Your task to perform on an android device: check battery use Image 0: 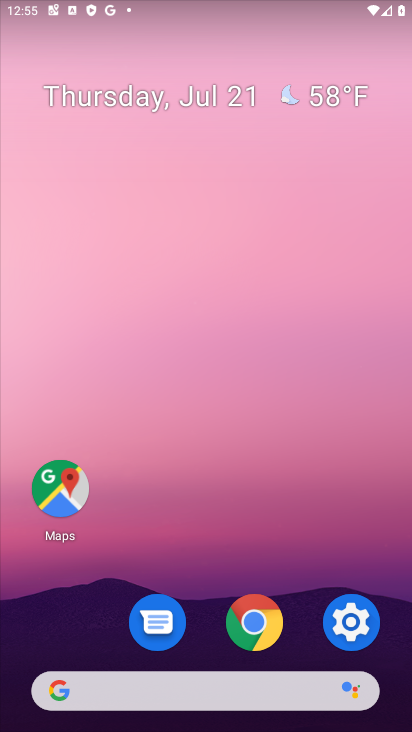
Step 0: click (357, 616)
Your task to perform on an android device: check battery use Image 1: 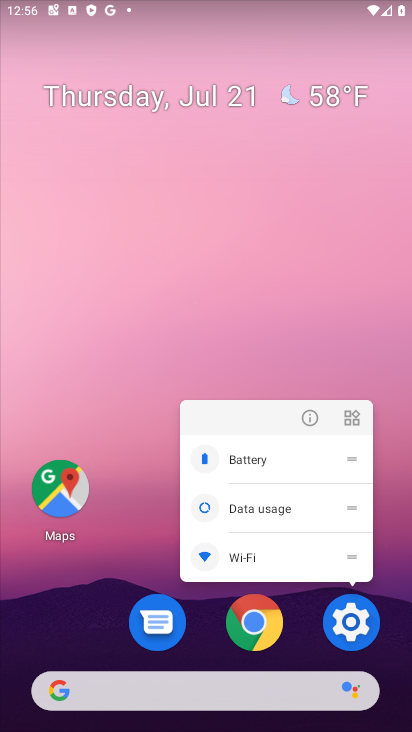
Step 1: click (356, 621)
Your task to perform on an android device: check battery use Image 2: 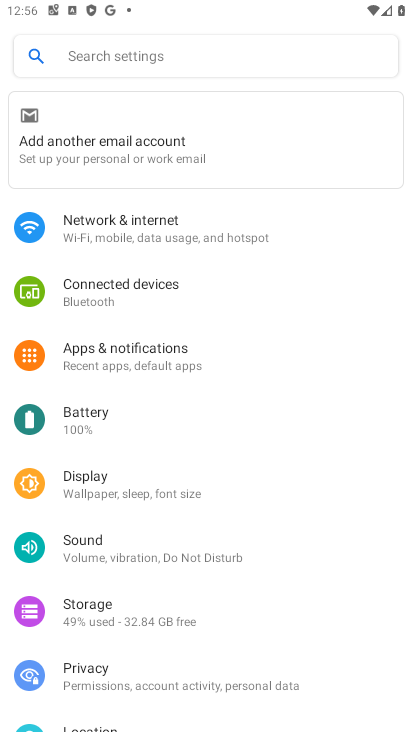
Step 2: click (111, 421)
Your task to perform on an android device: check battery use Image 3: 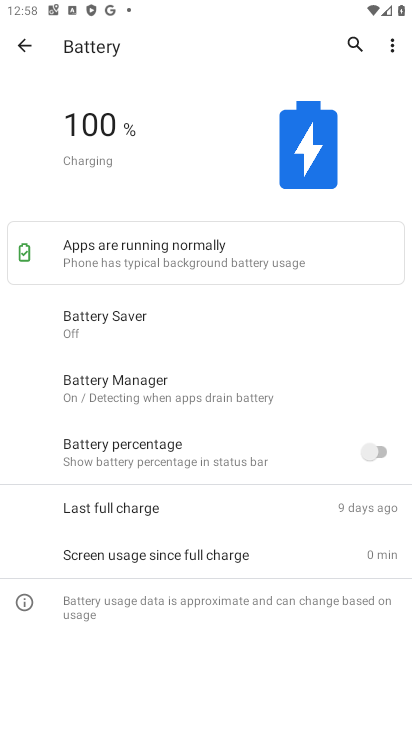
Step 3: task complete